Your task to perform on an android device: clear history in the chrome app Image 0: 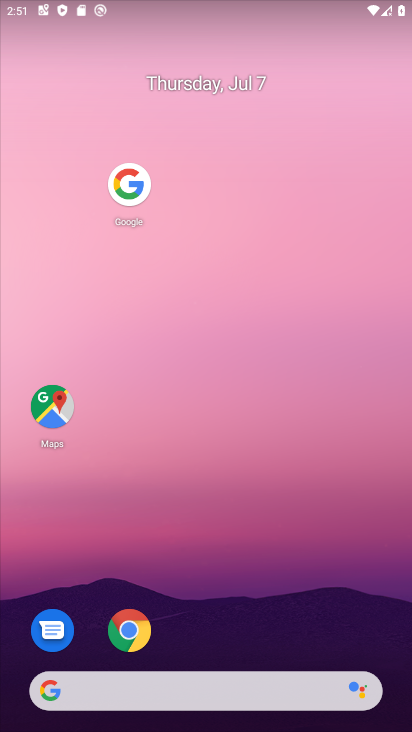
Step 0: drag from (211, 678) to (189, 472)
Your task to perform on an android device: clear history in the chrome app Image 1: 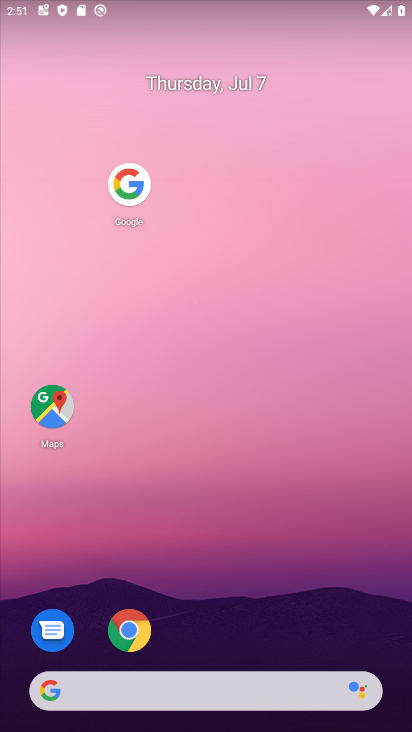
Step 1: drag from (191, 598) to (184, 308)
Your task to perform on an android device: clear history in the chrome app Image 2: 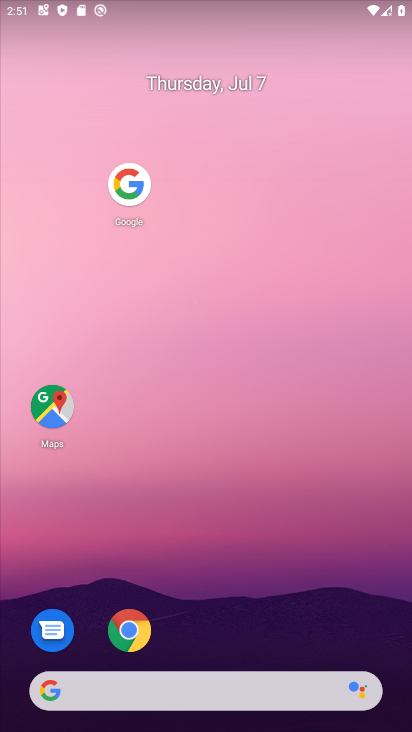
Step 2: drag from (281, 651) to (274, 198)
Your task to perform on an android device: clear history in the chrome app Image 3: 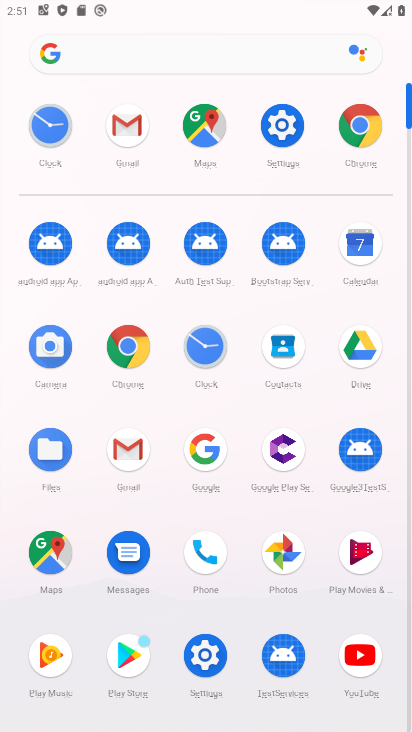
Step 3: click (133, 340)
Your task to perform on an android device: clear history in the chrome app Image 4: 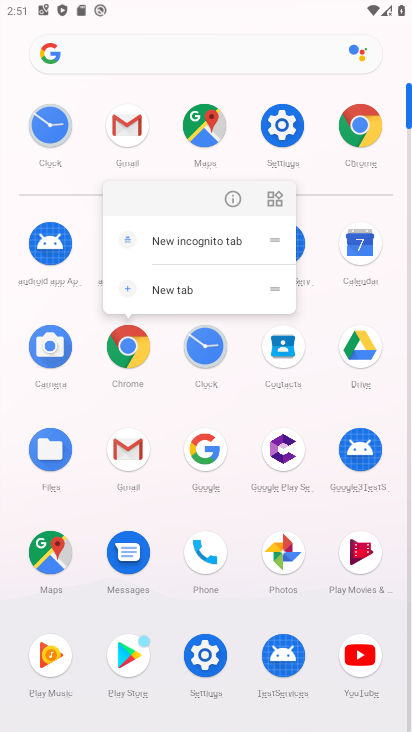
Step 4: click (133, 340)
Your task to perform on an android device: clear history in the chrome app Image 5: 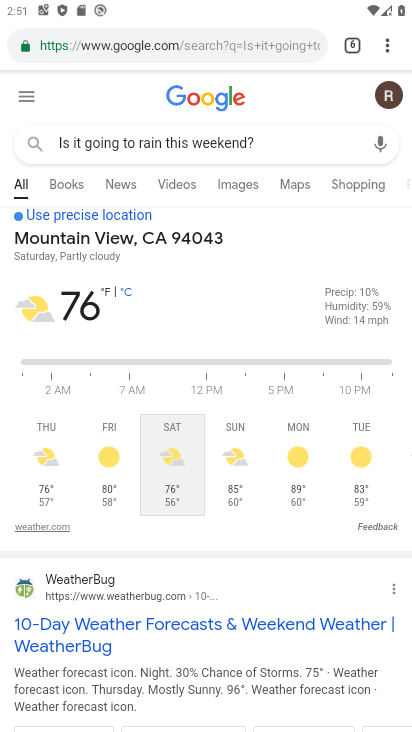
Step 5: click (374, 35)
Your task to perform on an android device: clear history in the chrome app Image 6: 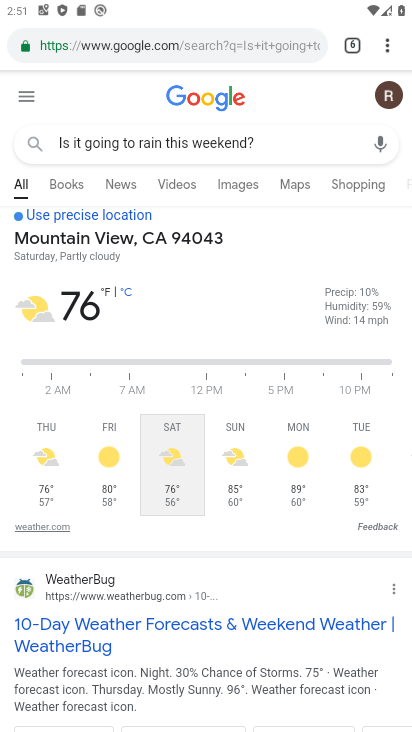
Step 6: click (390, 43)
Your task to perform on an android device: clear history in the chrome app Image 7: 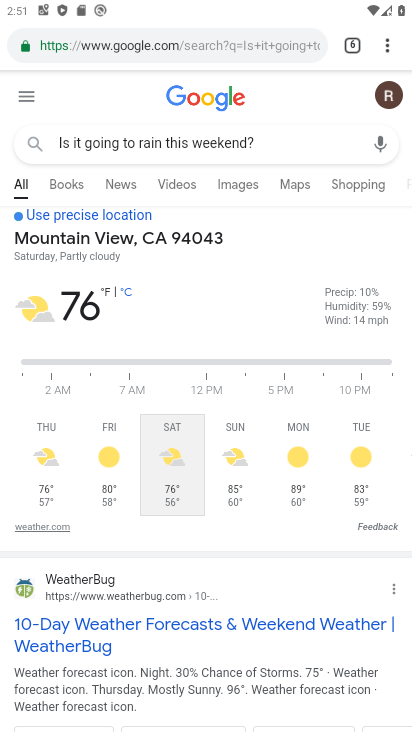
Step 7: click (390, 43)
Your task to perform on an android device: clear history in the chrome app Image 8: 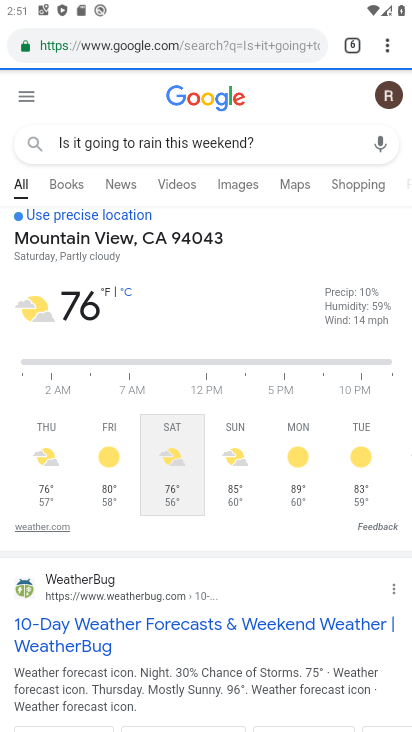
Step 8: click (390, 43)
Your task to perform on an android device: clear history in the chrome app Image 9: 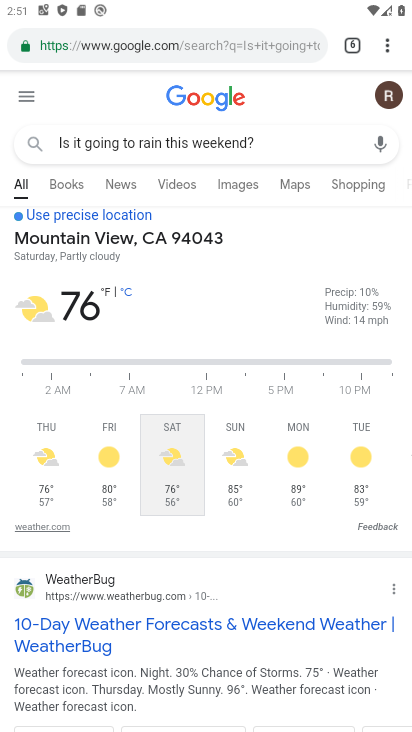
Step 9: click (390, 43)
Your task to perform on an android device: clear history in the chrome app Image 10: 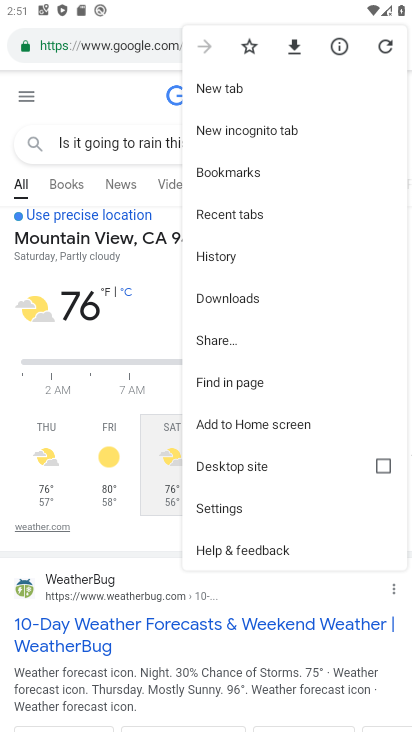
Step 10: click (227, 258)
Your task to perform on an android device: clear history in the chrome app Image 11: 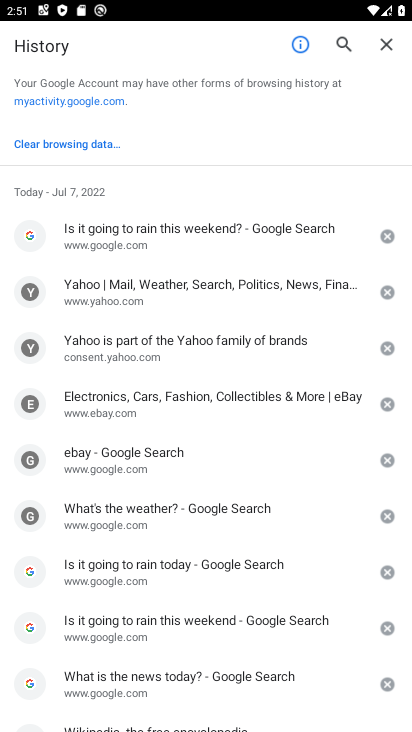
Step 11: click (73, 144)
Your task to perform on an android device: clear history in the chrome app Image 12: 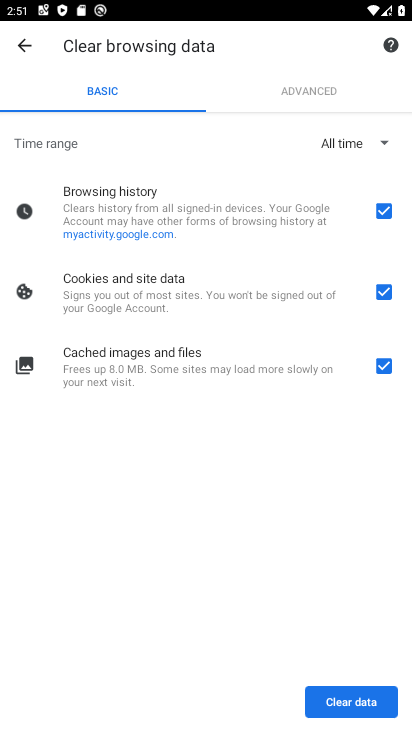
Step 12: click (345, 693)
Your task to perform on an android device: clear history in the chrome app Image 13: 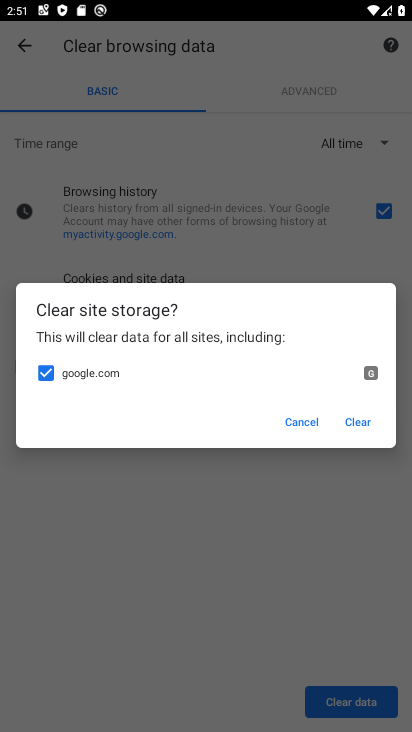
Step 13: click (349, 426)
Your task to perform on an android device: clear history in the chrome app Image 14: 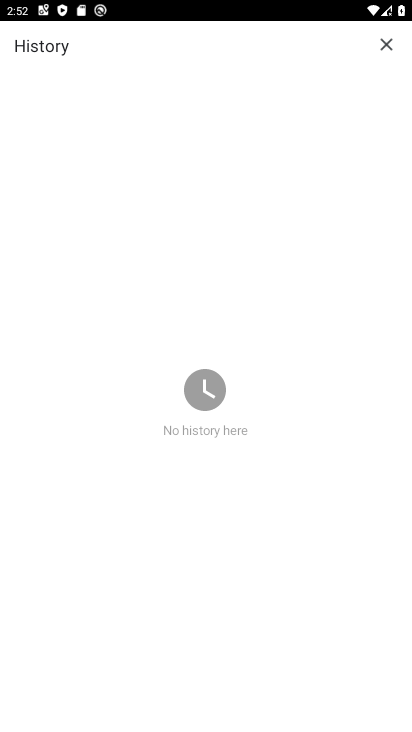
Step 14: task complete